Your task to perform on an android device: turn off wifi Image 0: 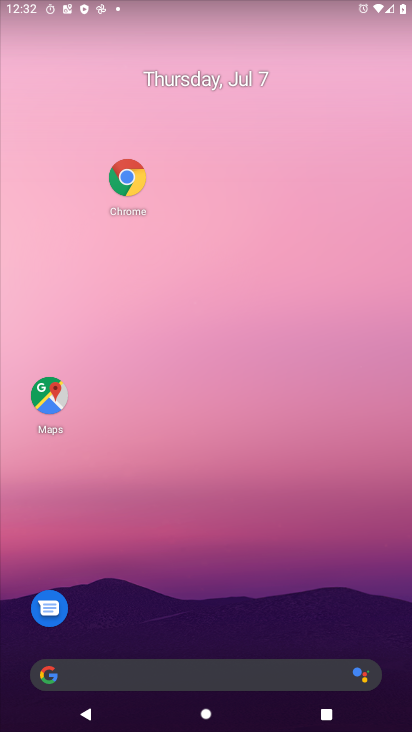
Step 0: drag from (183, 627) to (233, 261)
Your task to perform on an android device: turn off wifi Image 1: 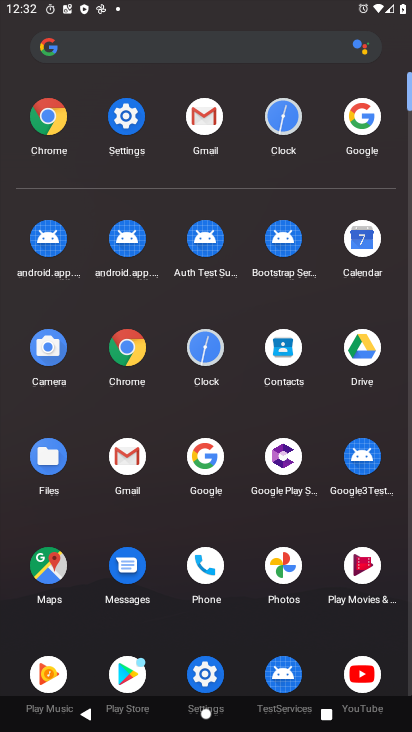
Step 1: click (133, 119)
Your task to perform on an android device: turn off wifi Image 2: 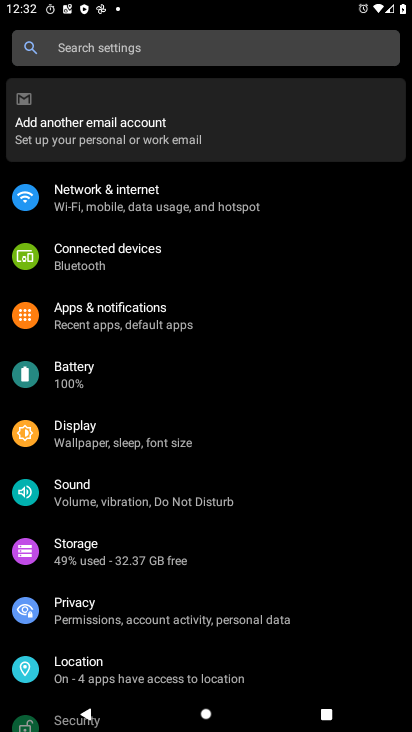
Step 2: click (144, 204)
Your task to perform on an android device: turn off wifi Image 3: 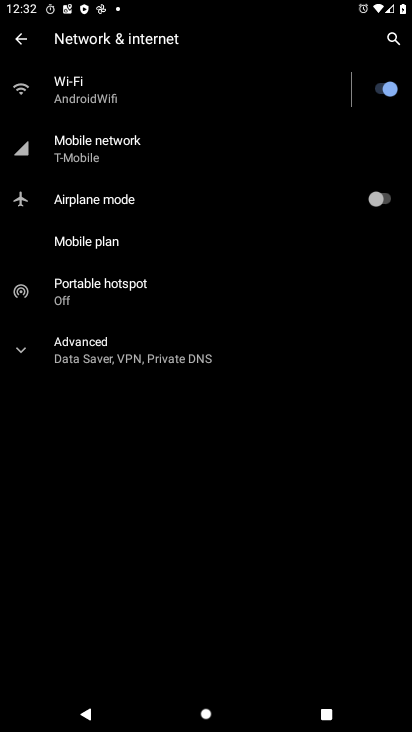
Step 3: click (374, 89)
Your task to perform on an android device: turn off wifi Image 4: 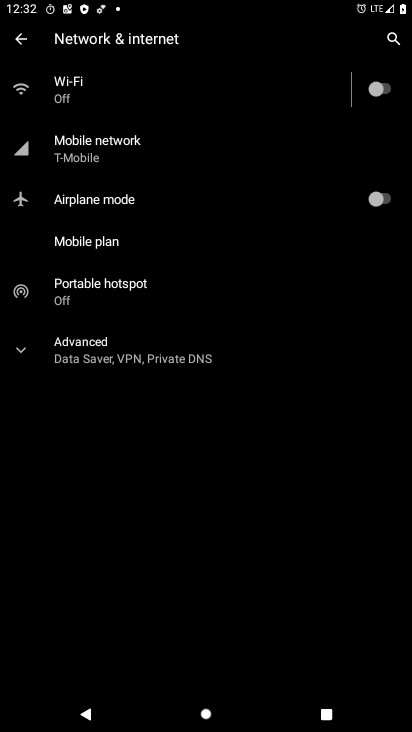
Step 4: task complete